Your task to perform on an android device: Open ESPN.com Image 0: 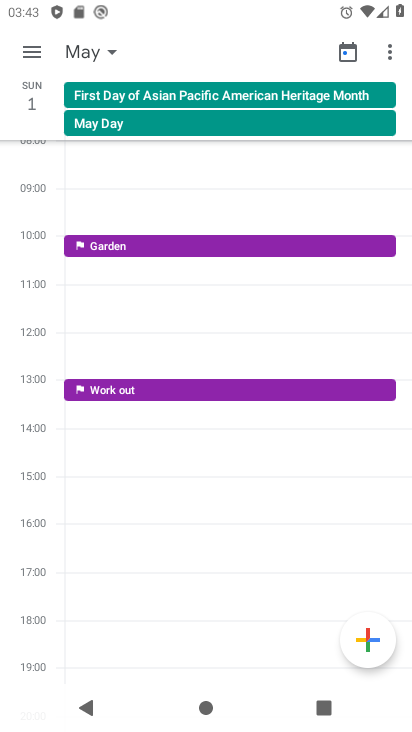
Step 0: press home button
Your task to perform on an android device: Open ESPN.com Image 1: 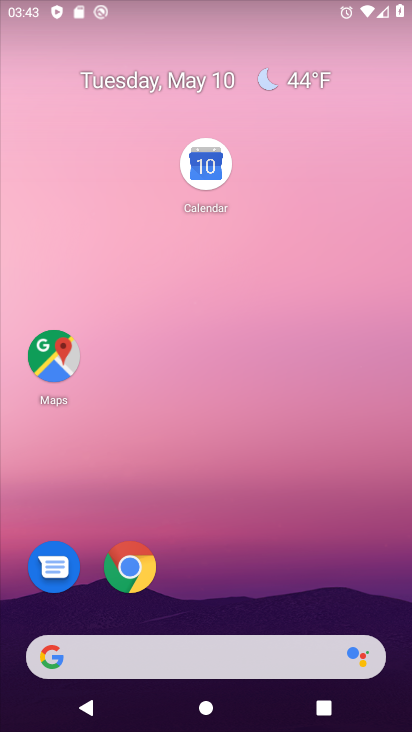
Step 1: drag from (219, 597) to (200, 98)
Your task to perform on an android device: Open ESPN.com Image 2: 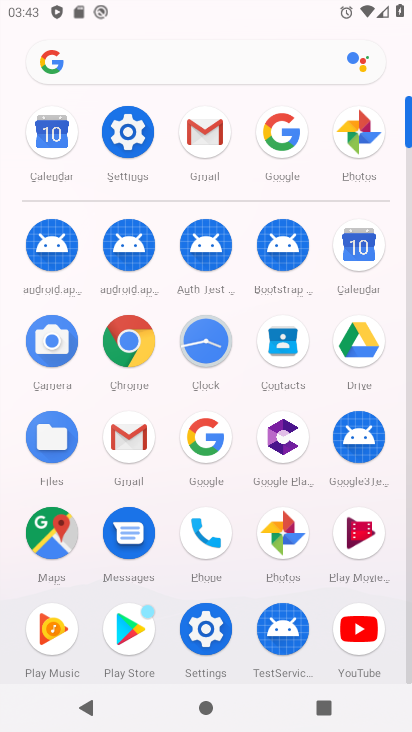
Step 2: click (210, 435)
Your task to perform on an android device: Open ESPN.com Image 3: 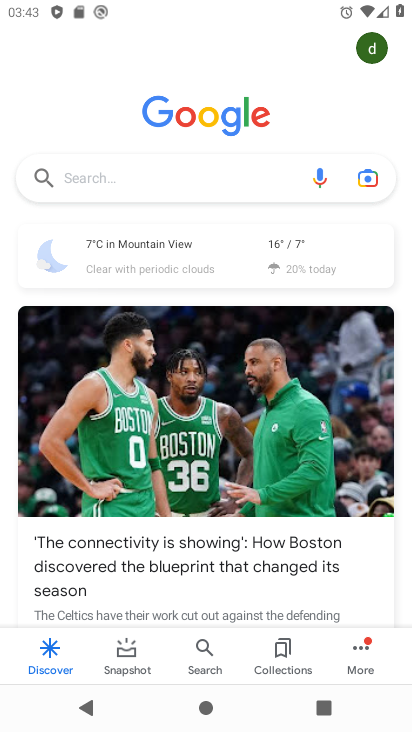
Step 3: click (139, 172)
Your task to perform on an android device: Open ESPN.com Image 4: 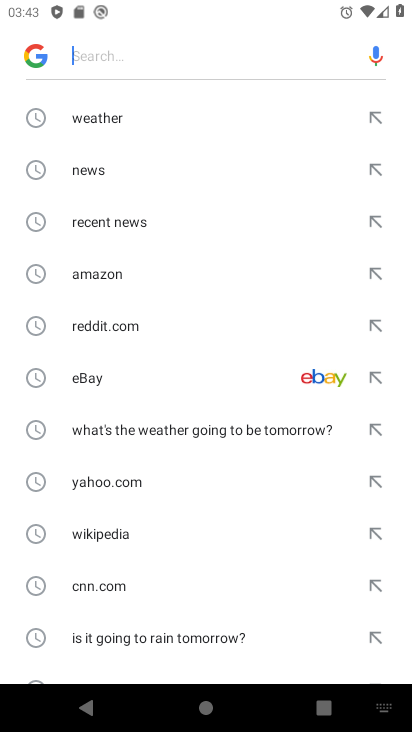
Step 4: type "espn.com"
Your task to perform on an android device: Open ESPN.com Image 5: 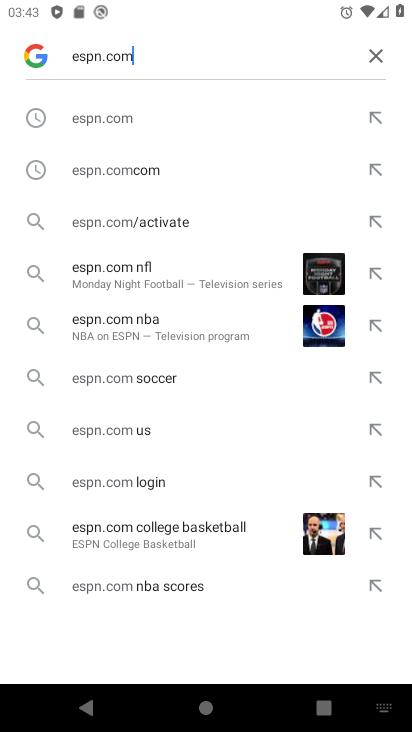
Step 5: click (146, 126)
Your task to perform on an android device: Open ESPN.com Image 6: 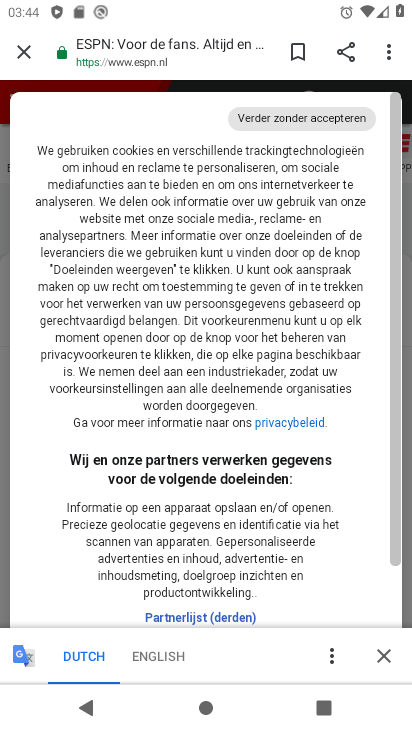
Step 6: task complete